Your task to perform on an android device: Open calendar and show me the fourth week of next month Image 0: 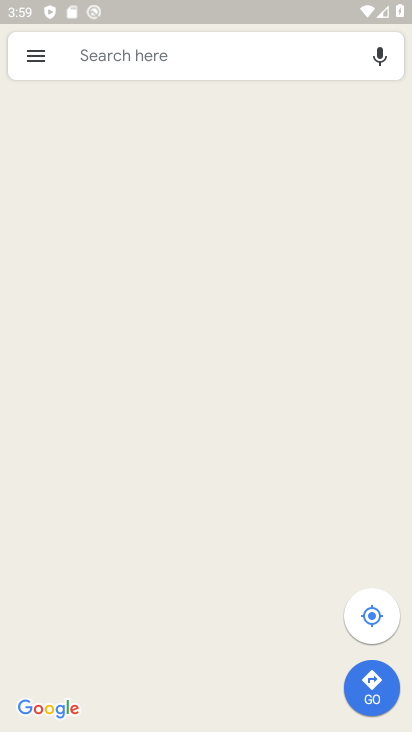
Step 0: press home button
Your task to perform on an android device: Open calendar and show me the fourth week of next month Image 1: 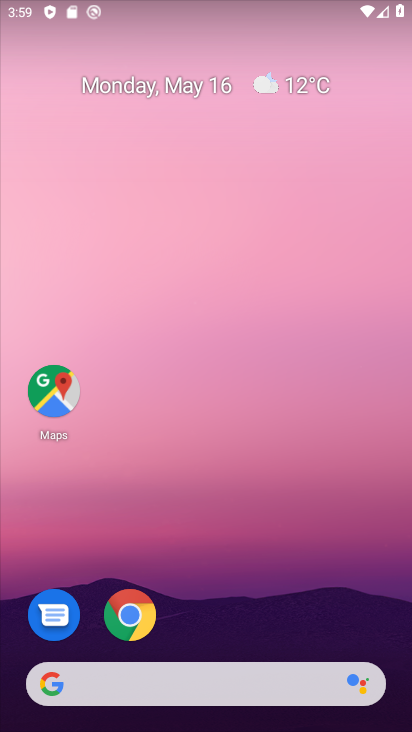
Step 1: drag from (205, 625) to (182, 14)
Your task to perform on an android device: Open calendar and show me the fourth week of next month Image 2: 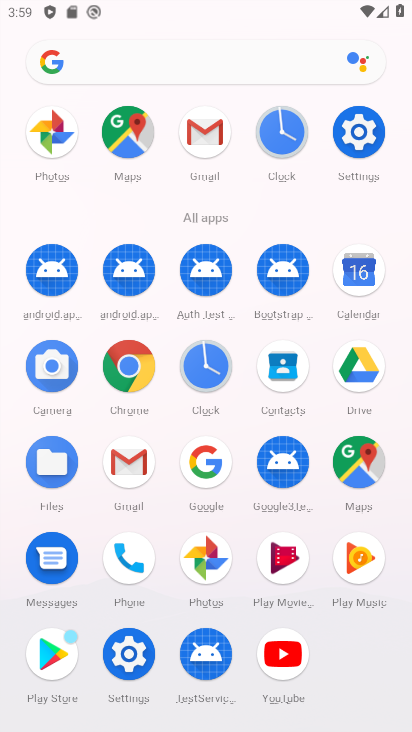
Step 2: click (359, 270)
Your task to perform on an android device: Open calendar and show me the fourth week of next month Image 3: 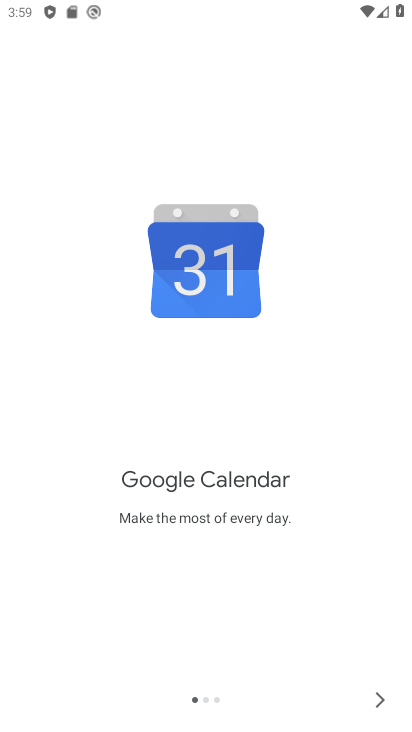
Step 3: click (382, 700)
Your task to perform on an android device: Open calendar and show me the fourth week of next month Image 4: 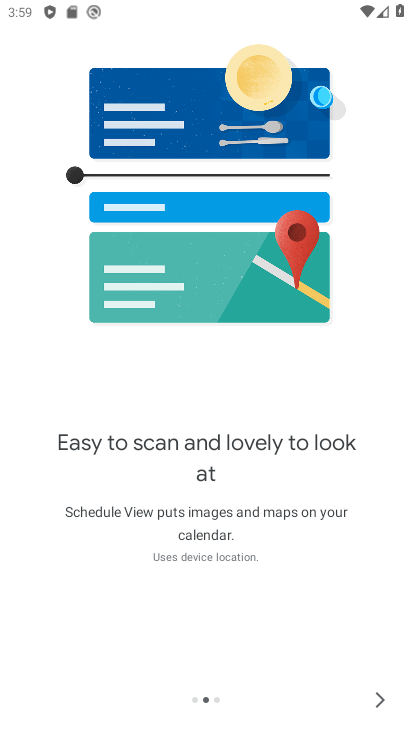
Step 4: click (381, 699)
Your task to perform on an android device: Open calendar and show me the fourth week of next month Image 5: 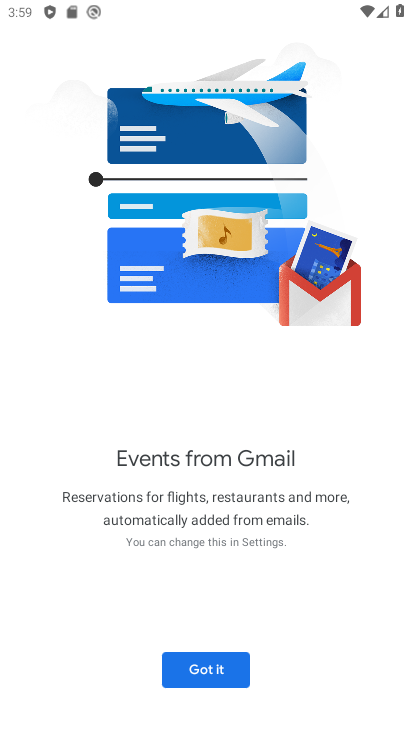
Step 5: click (205, 679)
Your task to perform on an android device: Open calendar and show me the fourth week of next month Image 6: 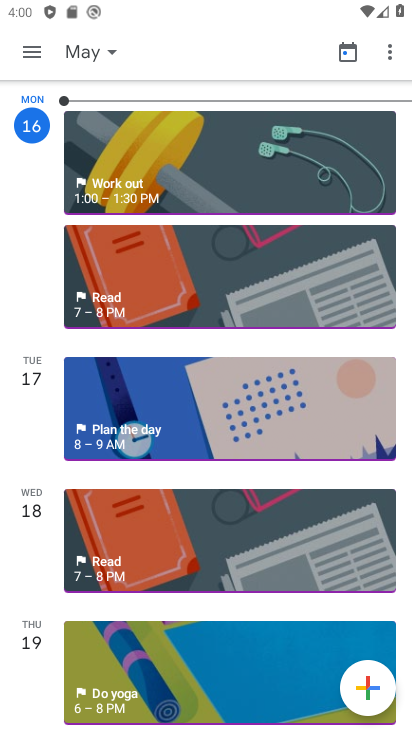
Step 6: click (16, 43)
Your task to perform on an android device: Open calendar and show me the fourth week of next month Image 7: 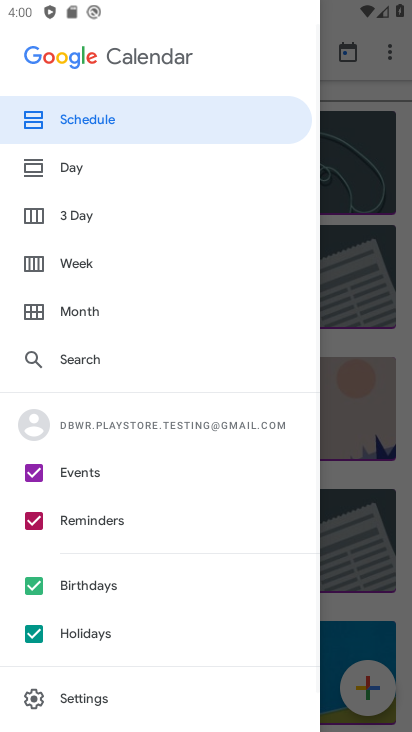
Step 7: click (94, 271)
Your task to perform on an android device: Open calendar and show me the fourth week of next month Image 8: 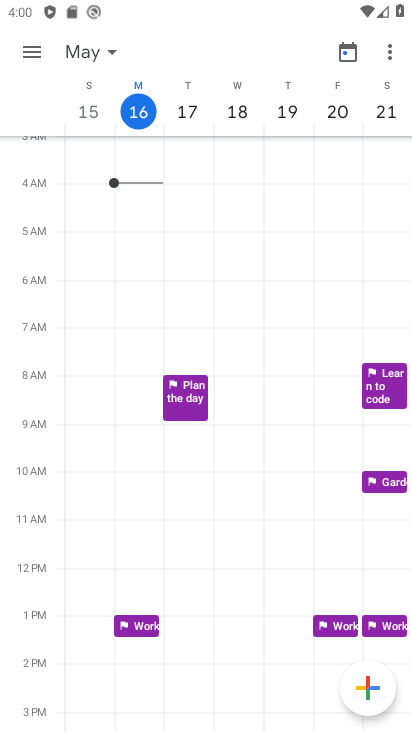
Step 8: task complete